Your task to perform on an android device: Open location settings Image 0: 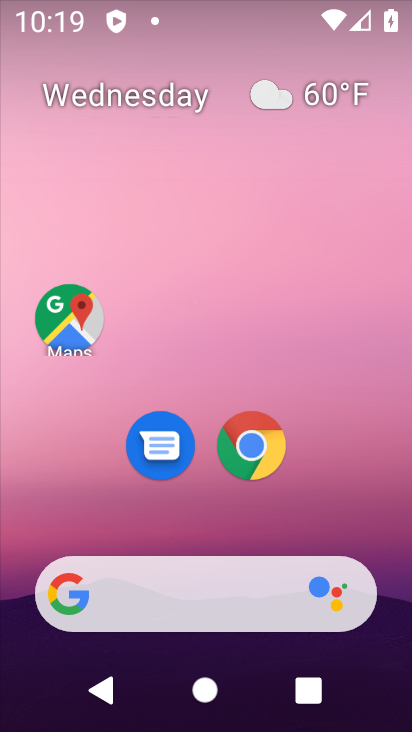
Step 0: drag from (198, 528) to (213, 136)
Your task to perform on an android device: Open location settings Image 1: 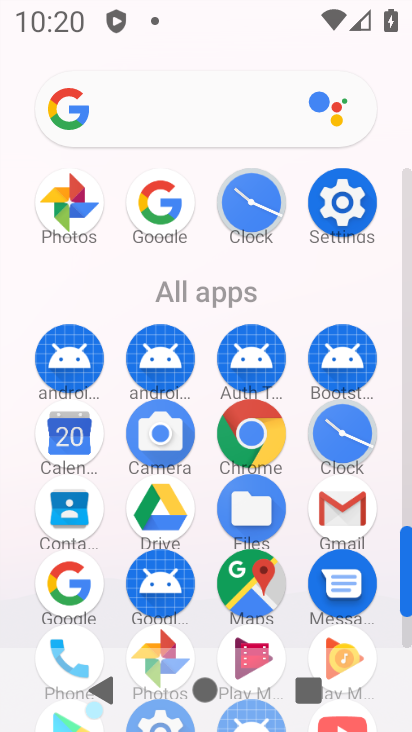
Step 1: click (349, 214)
Your task to perform on an android device: Open location settings Image 2: 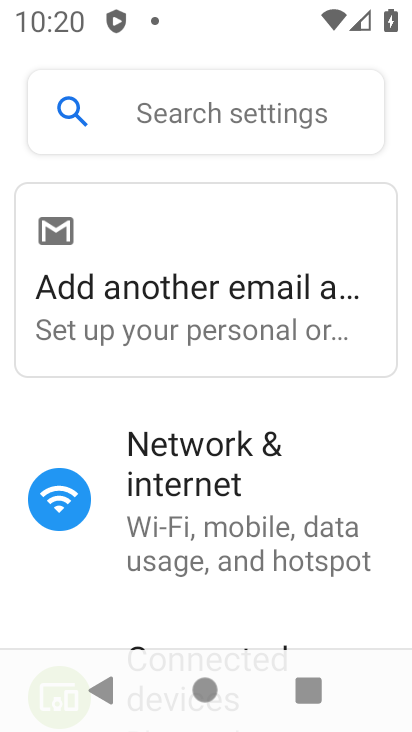
Step 2: drag from (238, 578) to (275, 267)
Your task to perform on an android device: Open location settings Image 3: 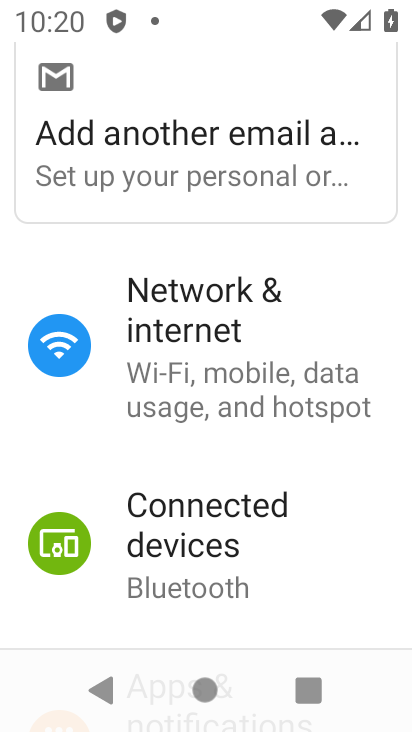
Step 3: drag from (235, 556) to (269, 248)
Your task to perform on an android device: Open location settings Image 4: 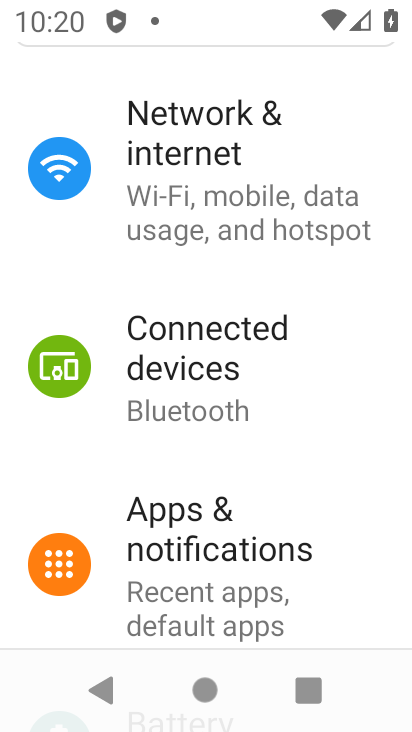
Step 4: drag from (250, 572) to (271, 242)
Your task to perform on an android device: Open location settings Image 5: 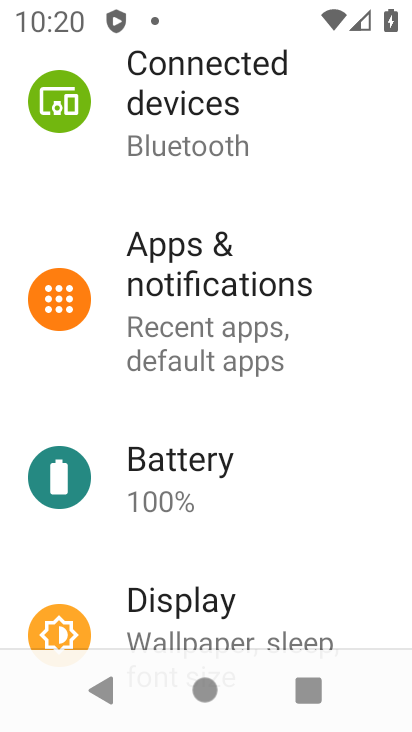
Step 5: drag from (217, 531) to (221, 210)
Your task to perform on an android device: Open location settings Image 6: 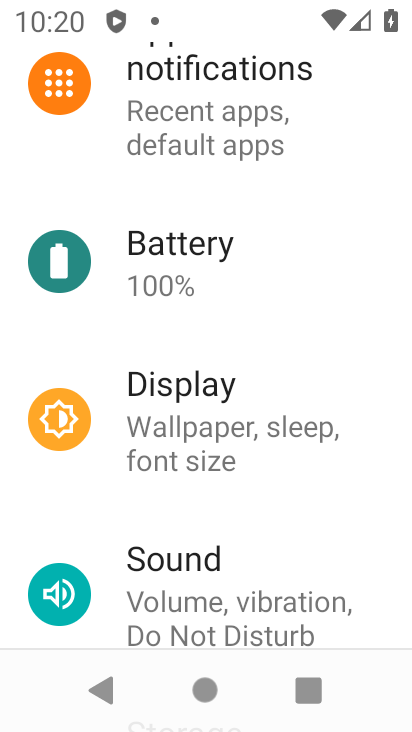
Step 6: drag from (221, 537) to (259, 278)
Your task to perform on an android device: Open location settings Image 7: 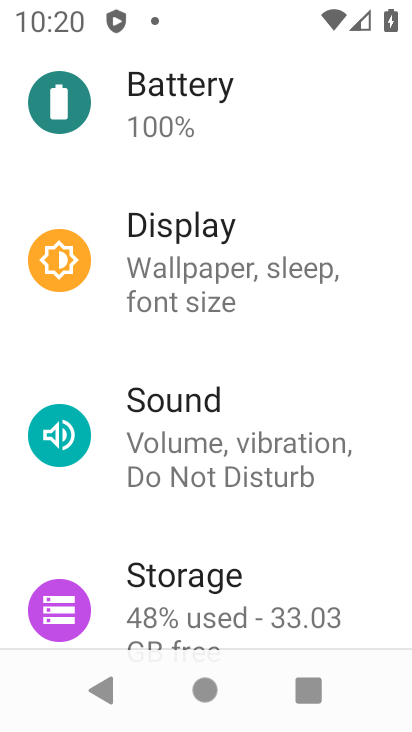
Step 7: drag from (244, 481) to (259, 259)
Your task to perform on an android device: Open location settings Image 8: 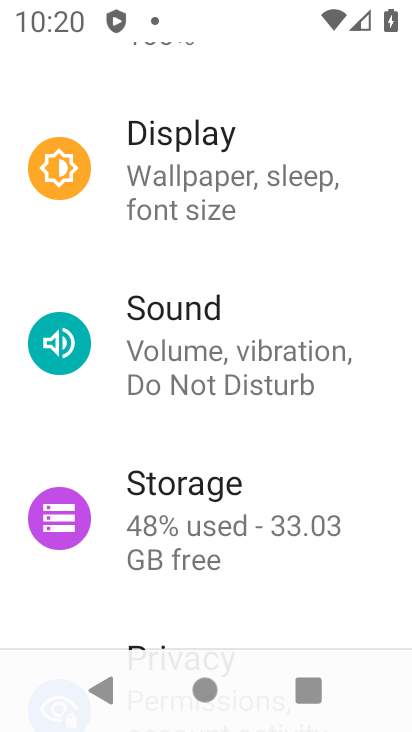
Step 8: drag from (259, 502) to (263, 283)
Your task to perform on an android device: Open location settings Image 9: 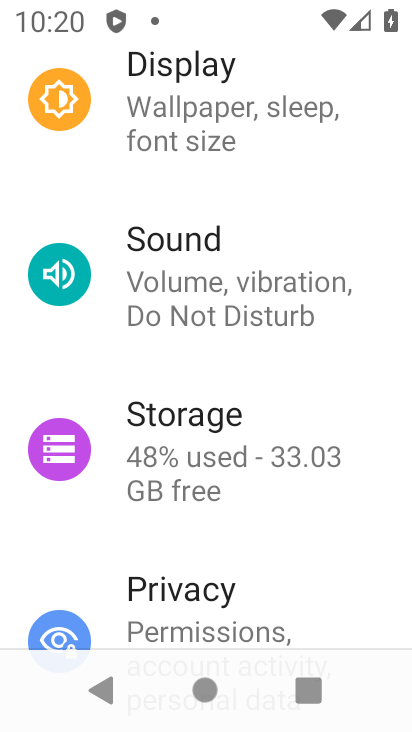
Step 9: drag from (248, 540) to (272, 190)
Your task to perform on an android device: Open location settings Image 10: 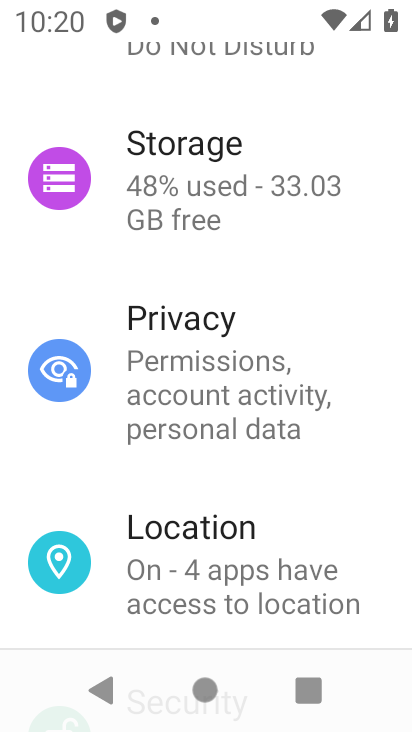
Step 10: click (249, 528)
Your task to perform on an android device: Open location settings Image 11: 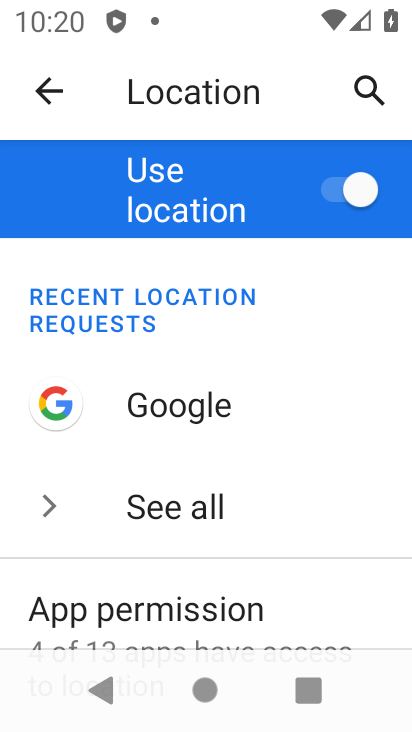
Step 11: task complete